Your task to perform on an android device: Go to accessibility settings Image 0: 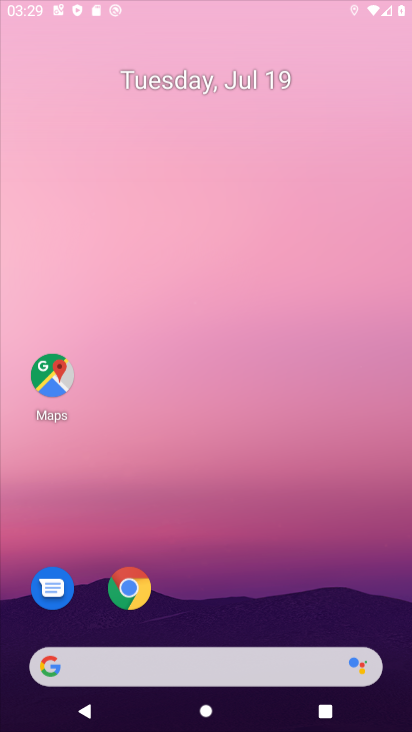
Step 0: click (160, 20)
Your task to perform on an android device: Go to accessibility settings Image 1: 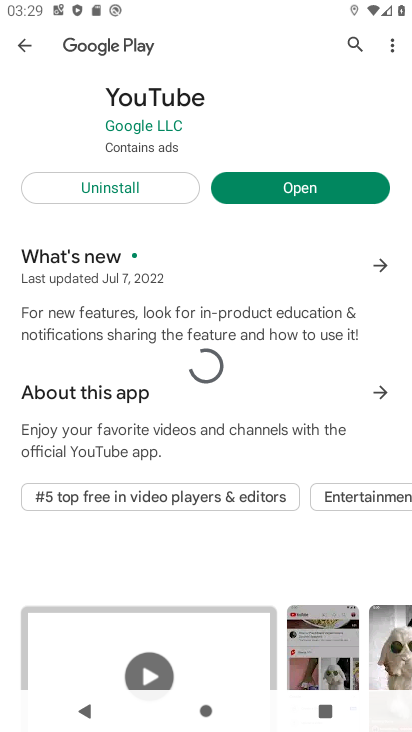
Step 1: drag from (204, 534) to (206, 236)
Your task to perform on an android device: Go to accessibility settings Image 2: 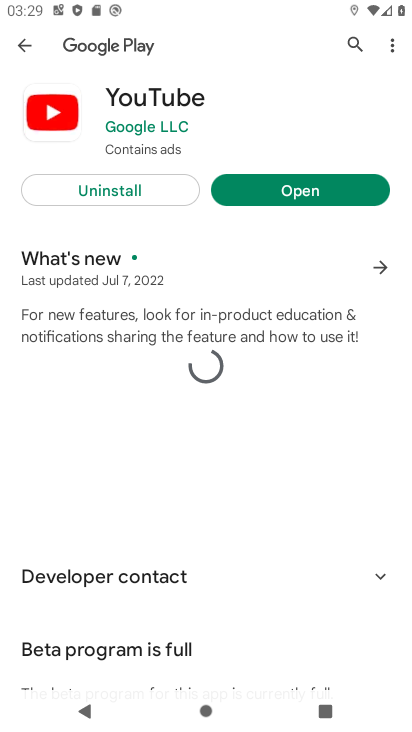
Step 2: press home button
Your task to perform on an android device: Go to accessibility settings Image 3: 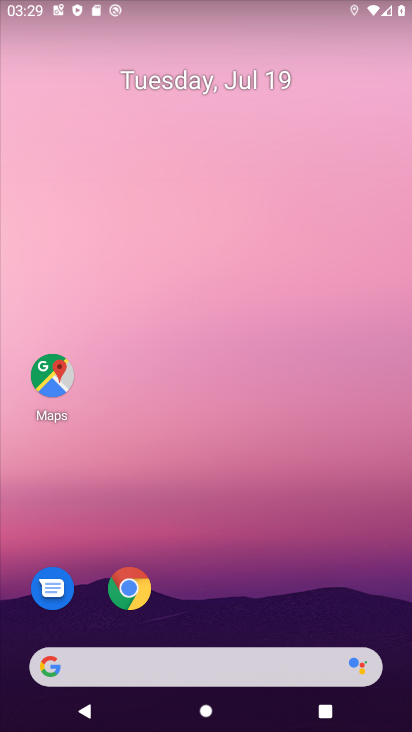
Step 3: drag from (208, 501) to (178, 77)
Your task to perform on an android device: Go to accessibility settings Image 4: 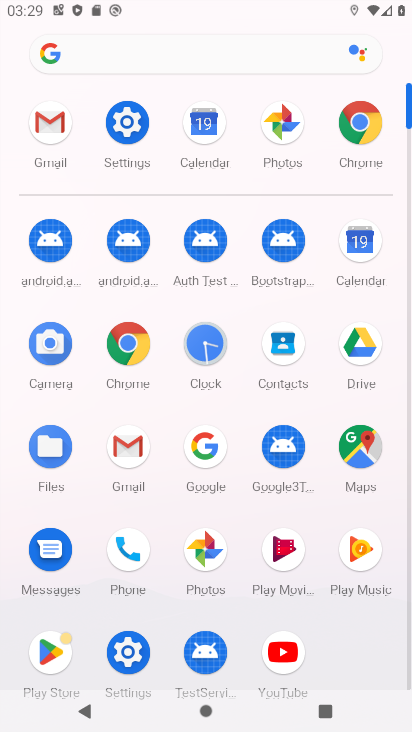
Step 4: click (125, 124)
Your task to perform on an android device: Go to accessibility settings Image 5: 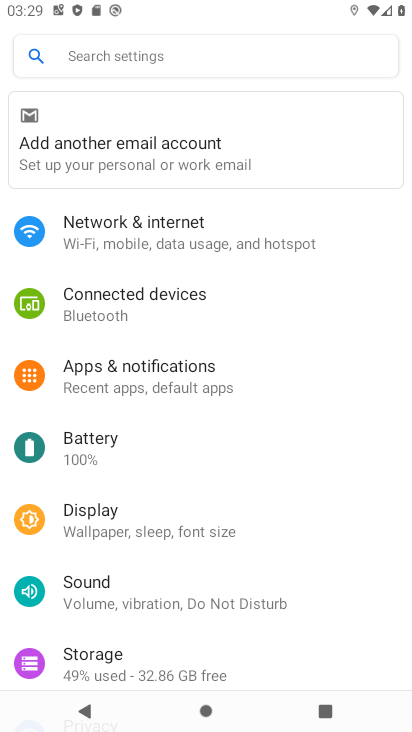
Step 5: drag from (199, 630) to (150, 195)
Your task to perform on an android device: Go to accessibility settings Image 6: 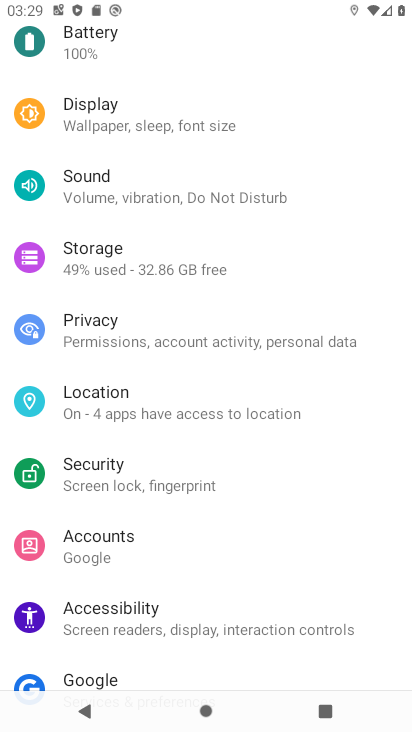
Step 6: click (112, 611)
Your task to perform on an android device: Go to accessibility settings Image 7: 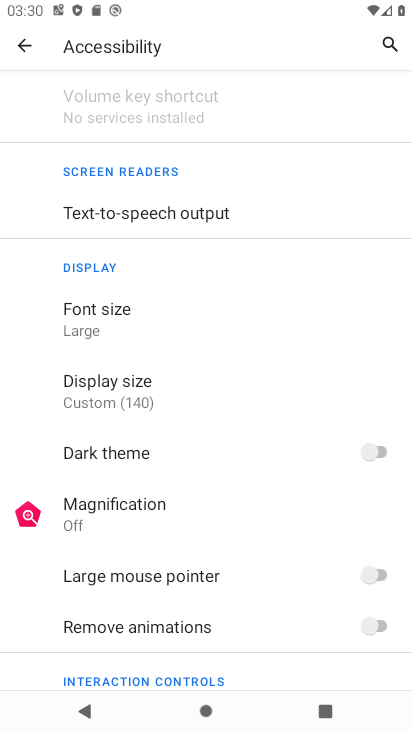
Step 7: task complete